Your task to perform on an android device: Turn on the flashlight Image 0: 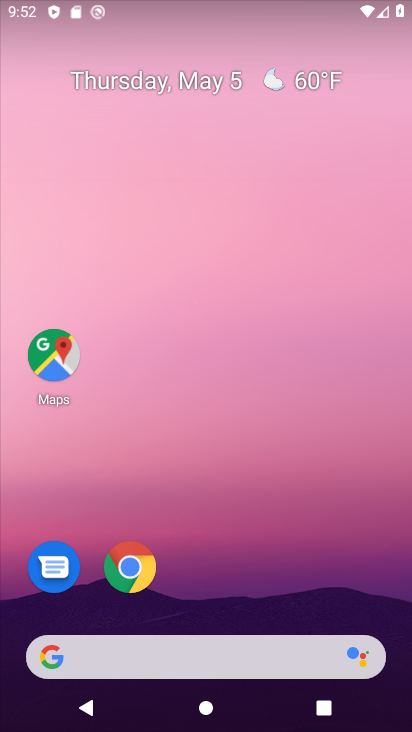
Step 0: drag from (195, 612) to (195, 212)
Your task to perform on an android device: Turn on the flashlight Image 1: 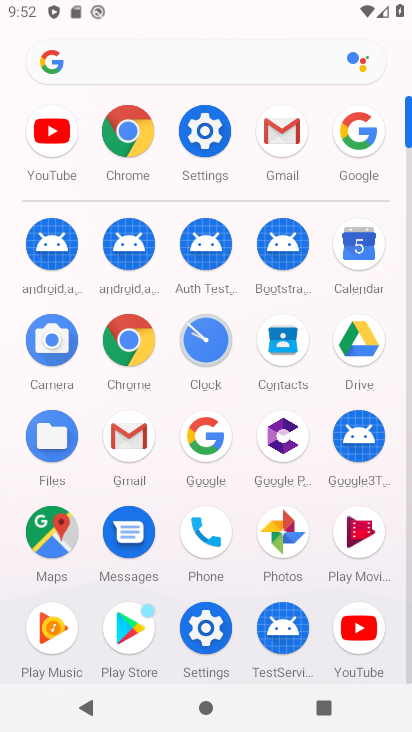
Step 1: click (210, 153)
Your task to perform on an android device: Turn on the flashlight Image 2: 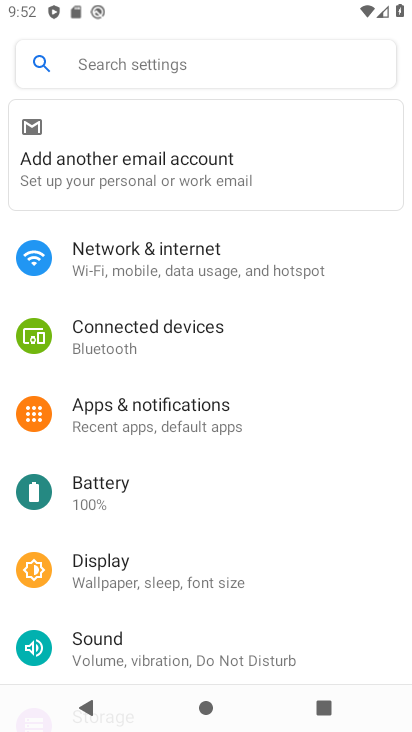
Step 2: click (150, 568)
Your task to perform on an android device: Turn on the flashlight Image 3: 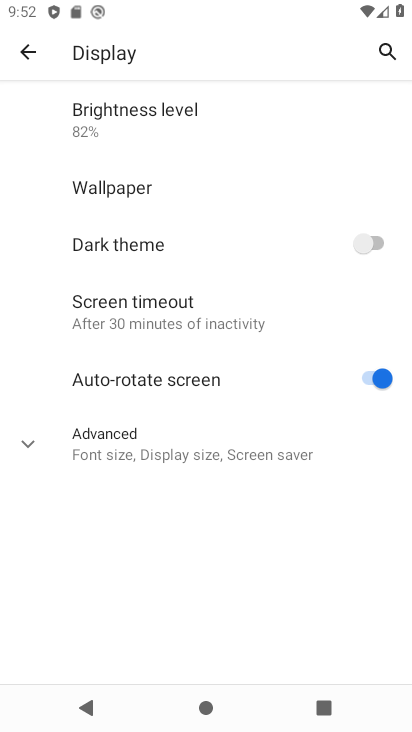
Step 3: task complete